Your task to perform on an android device: open app "TextNow: Call + Text Unlimited" (install if not already installed) and enter user name: "stoke@yahoo.com" and password: "prompted" Image 0: 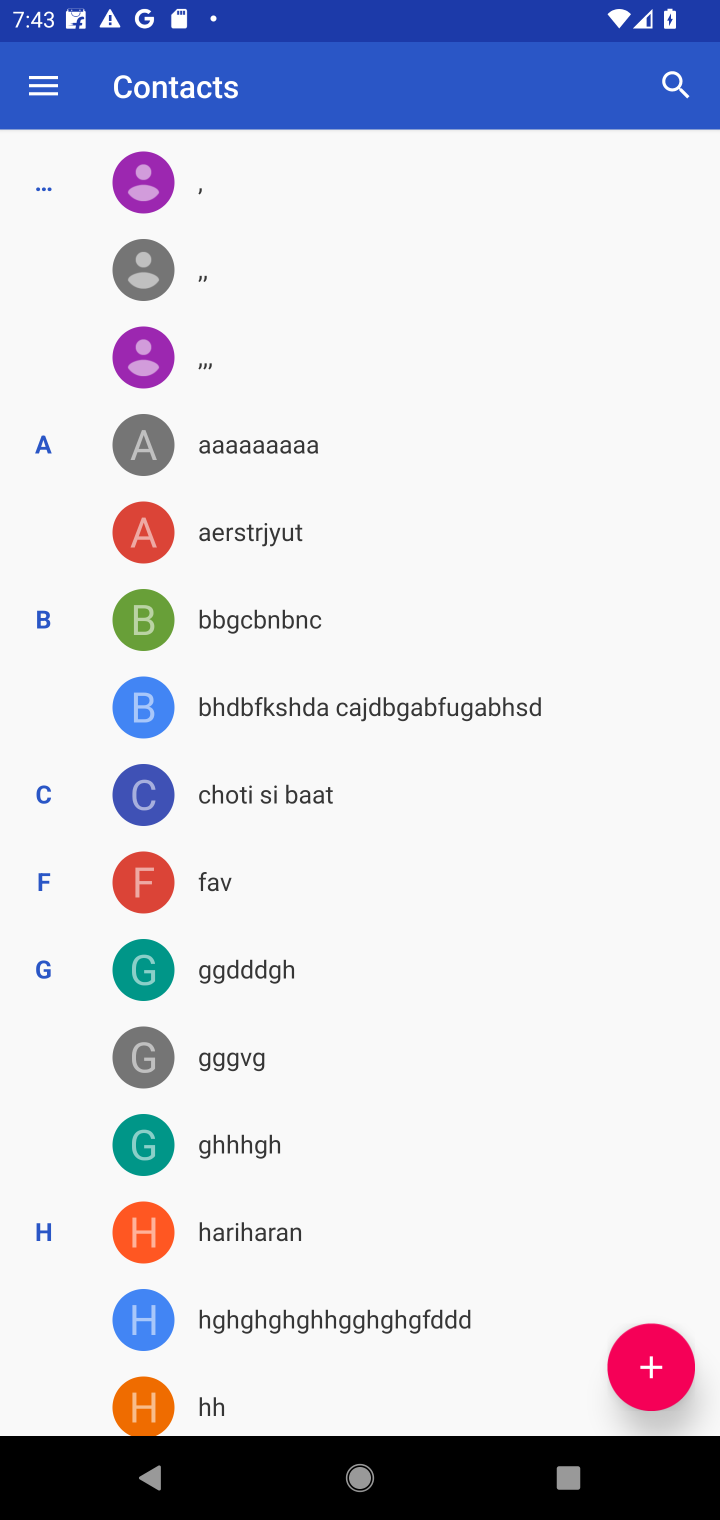
Step 0: click (671, 91)
Your task to perform on an android device: open app "TextNow: Call + Text Unlimited" (install if not already installed) and enter user name: "stoke@yahoo.com" and password: "prompted" Image 1: 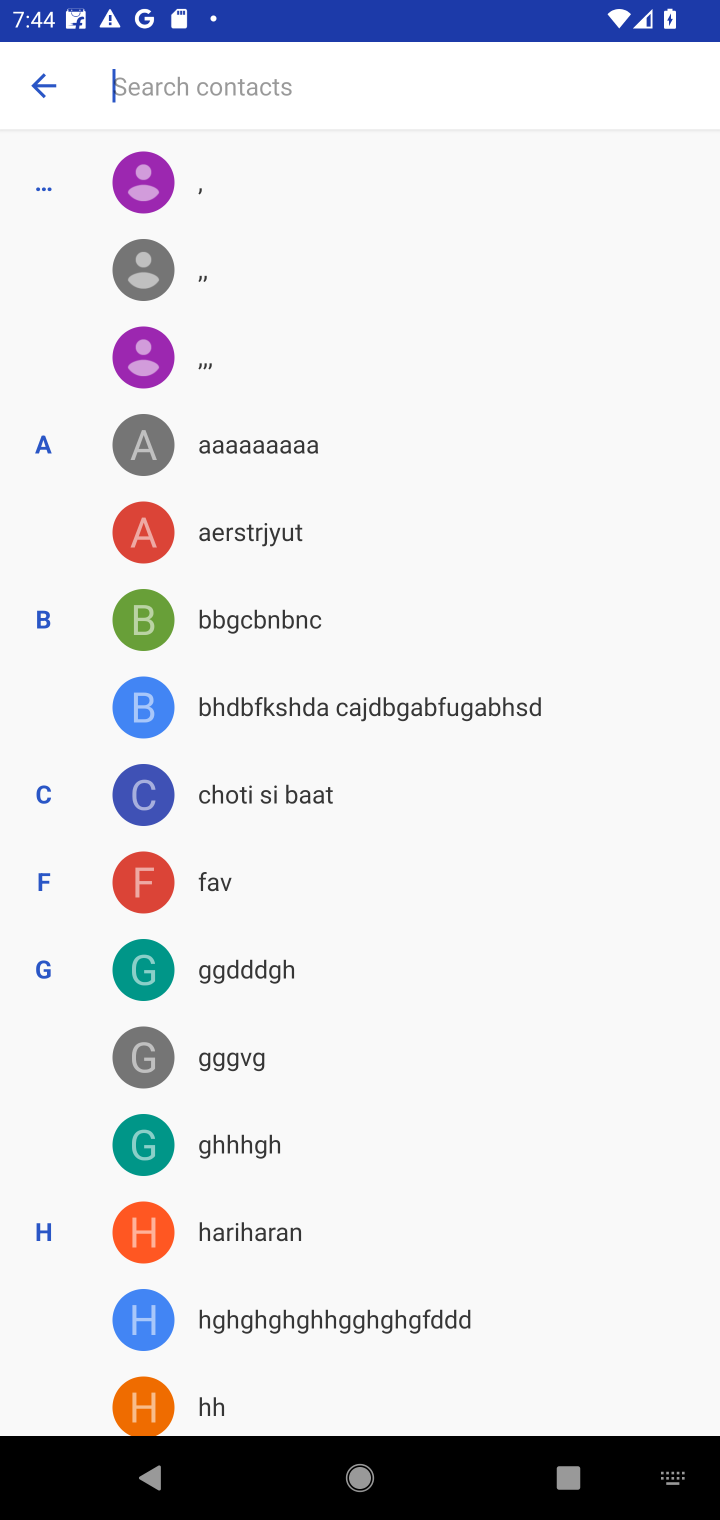
Step 1: press home button
Your task to perform on an android device: open app "TextNow: Call + Text Unlimited" (install if not already installed) and enter user name: "stoke@yahoo.com" and password: "prompted" Image 2: 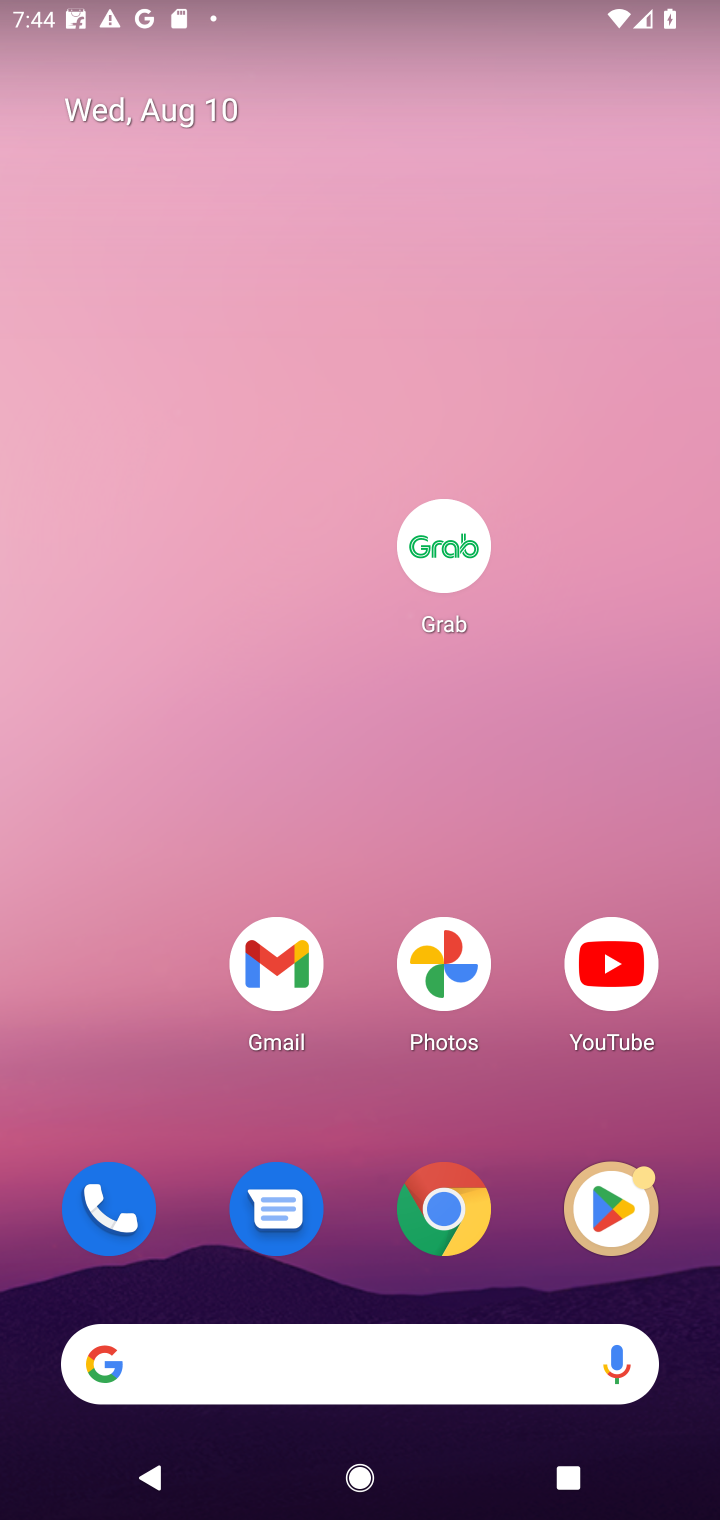
Step 2: click (591, 1240)
Your task to perform on an android device: open app "TextNow: Call + Text Unlimited" (install if not already installed) and enter user name: "stoke@yahoo.com" and password: "prompted" Image 3: 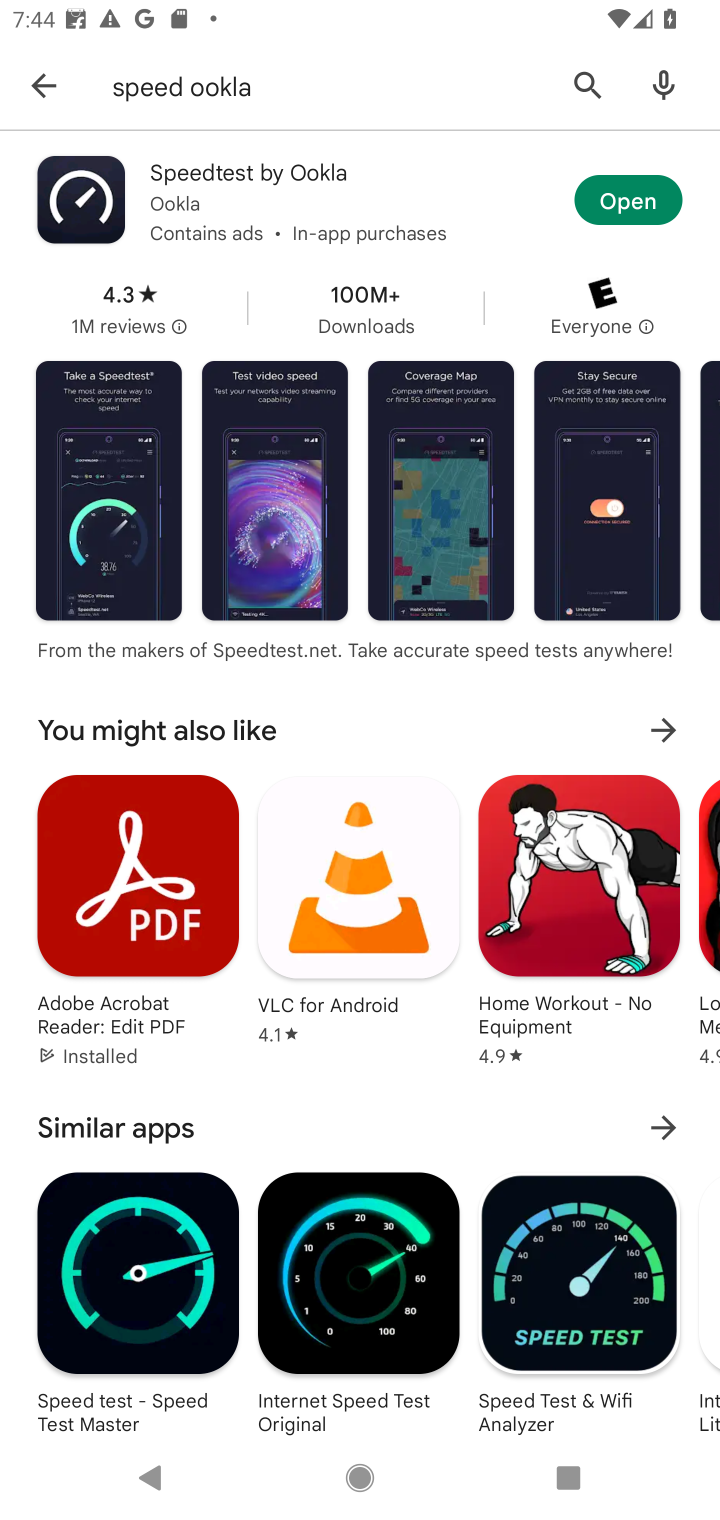
Step 3: click (590, 90)
Your task to perform on an android device: open app "TextNow: Call + Text Unlimited" (install if not already installed) and enter user name: "stoke@yahoo.com" and password: "prompted" Image 4: 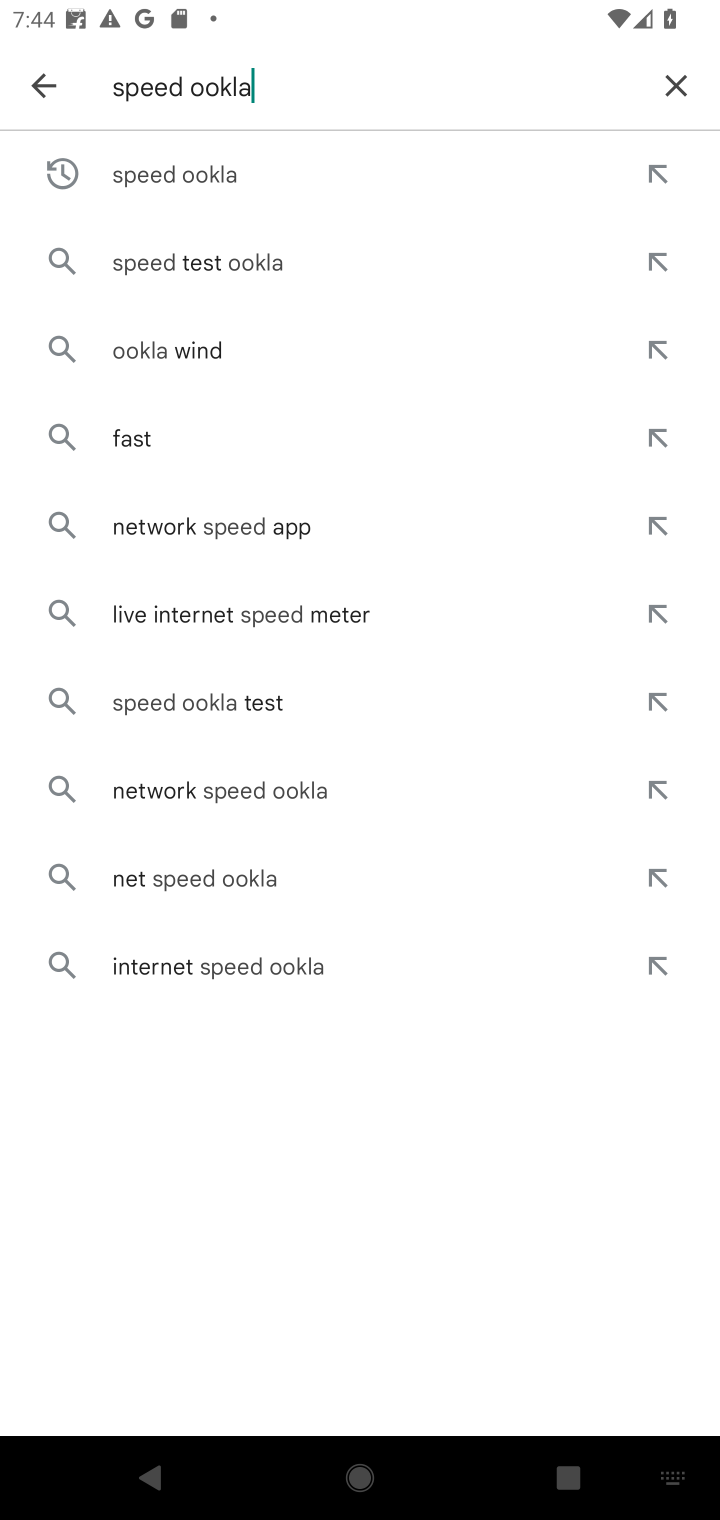
Step 4: click (679, 80)
Your task to perform on an android device: open app "TextNow: Call + Text Unlimited" (install if not already installed) and enter user name: "stoke@yahoo.com" and password: "prompted" Image 5: 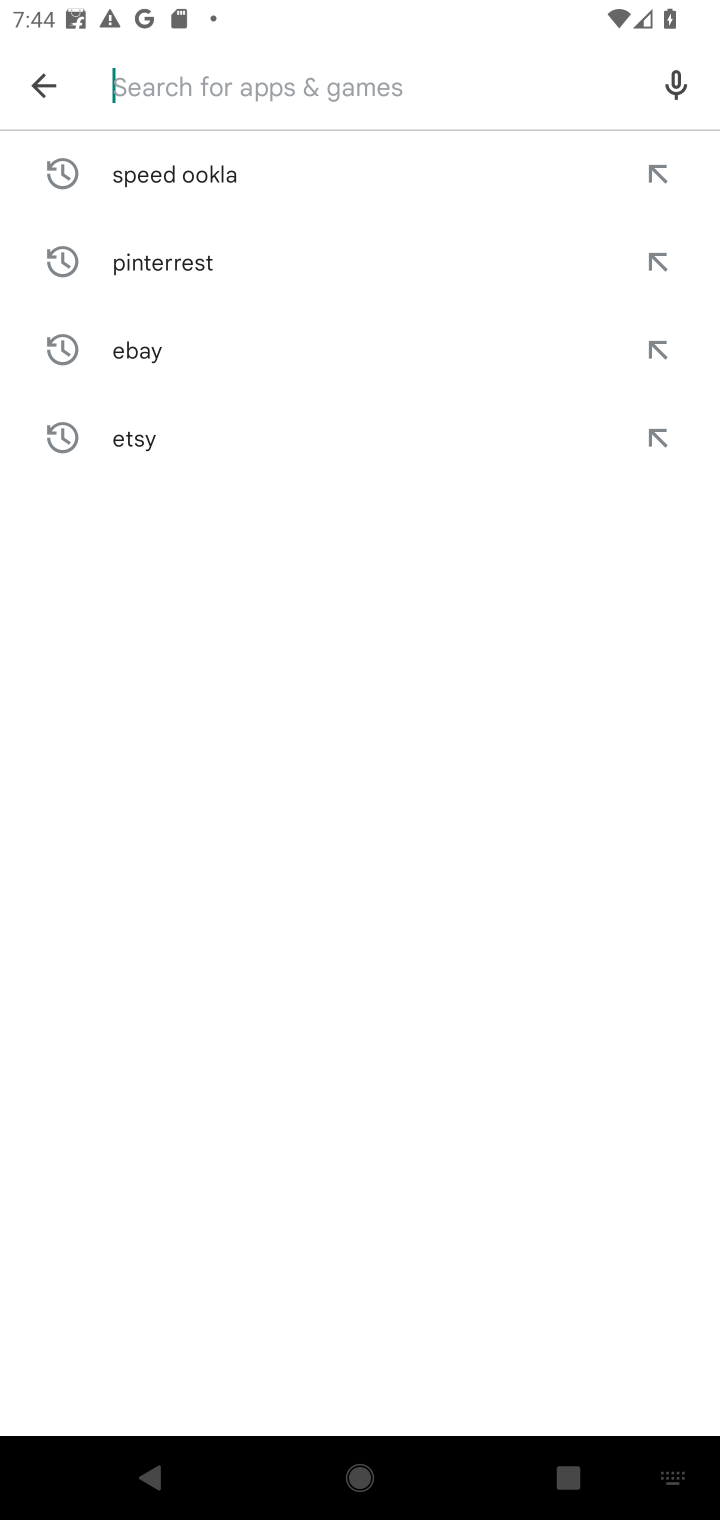
Step 5: type "textnow"
Your task to perform on an android device: open app "TextNow: Call + Text Unlimited" (install if not already installed) and enter user name: "stoke@yahoo.com" and password: "prompted" Image 6: 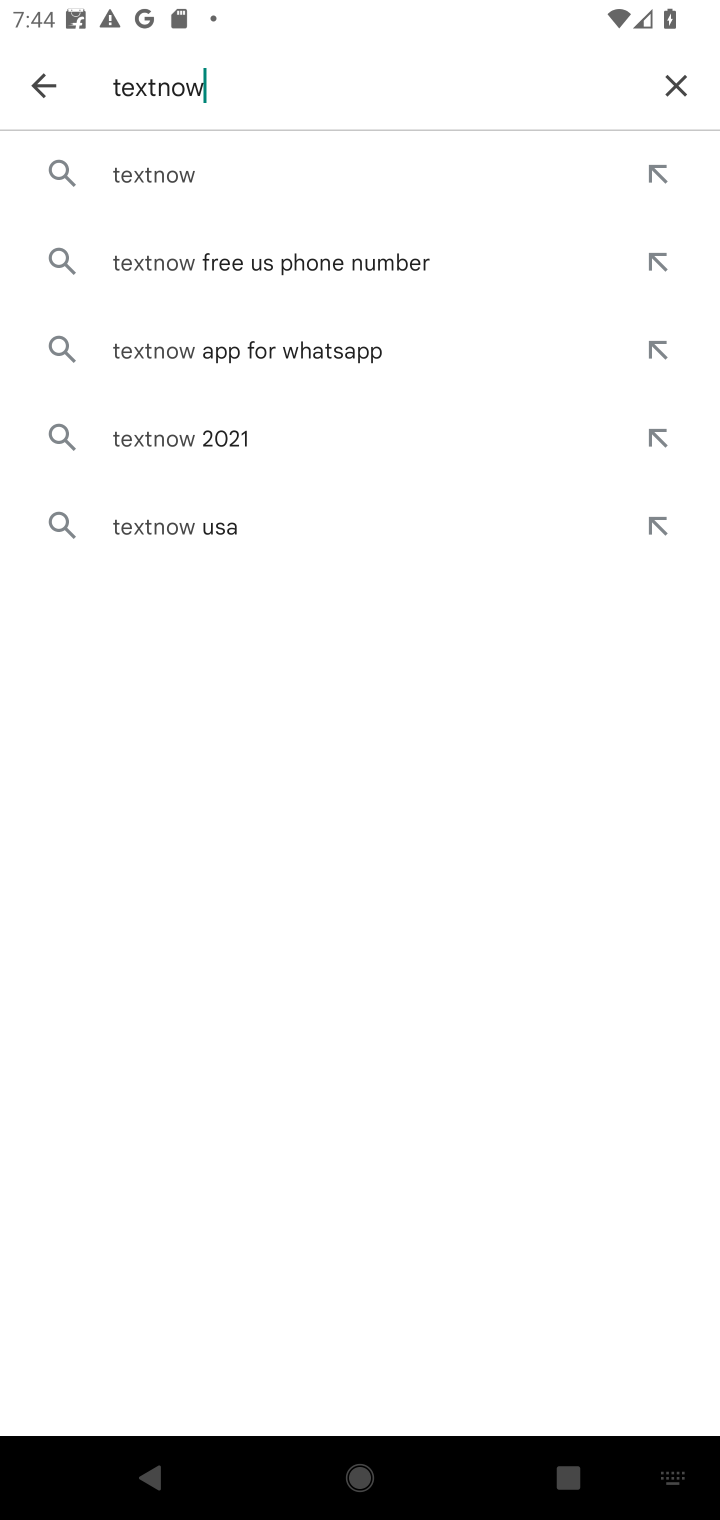
Step 6: click (193, 177)
Your task to perform on an android device: open app "TextNow: Call + Text Unlimited" (install if not already installed) and enter user name: "stoke@yahoo.com" and password: "prompted" Image 7: 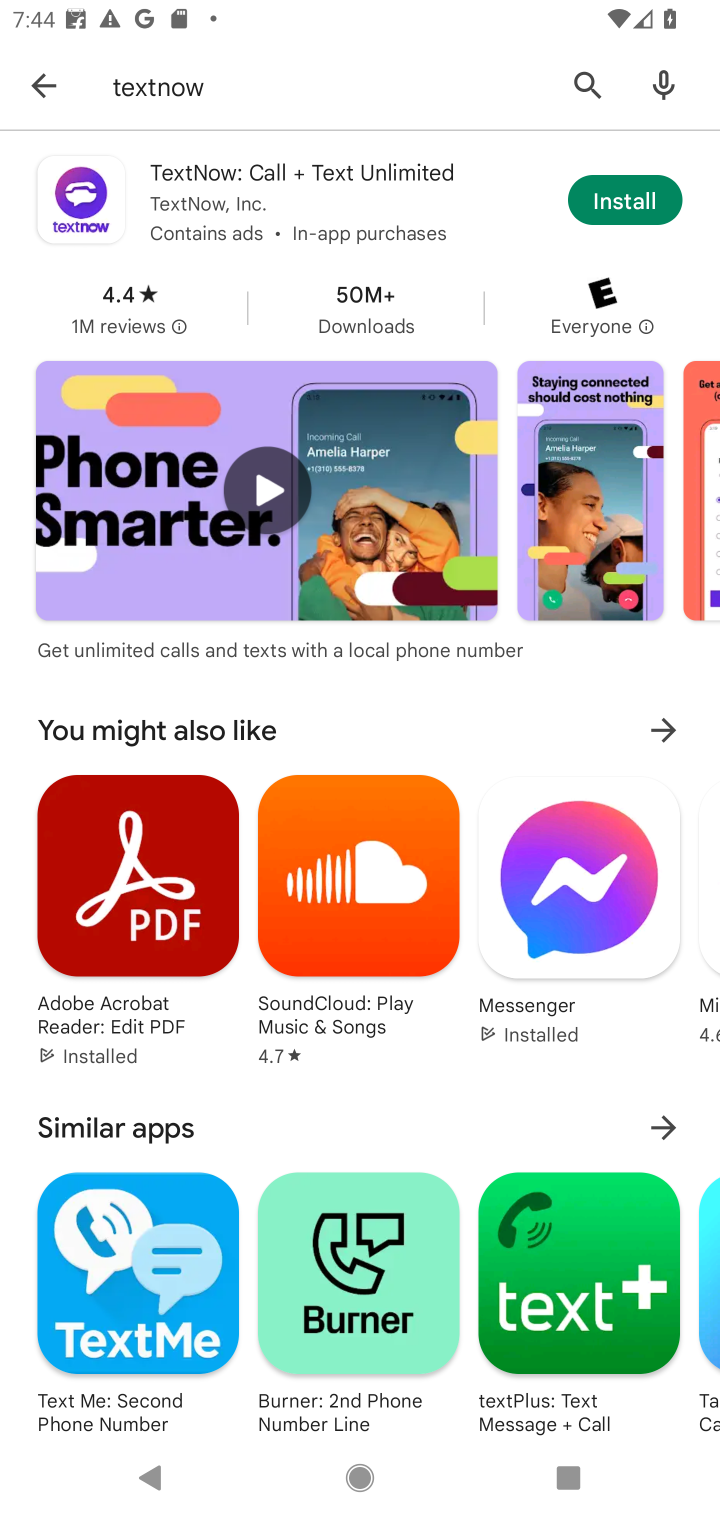
Step 7: click (660, 171)
Your task to perform on an android device: open app "TextNow: Call + Text Unlimited" (install if not already installed) and enter user name: "stoke@yahoo.com" and password: "prompted" Image 8: 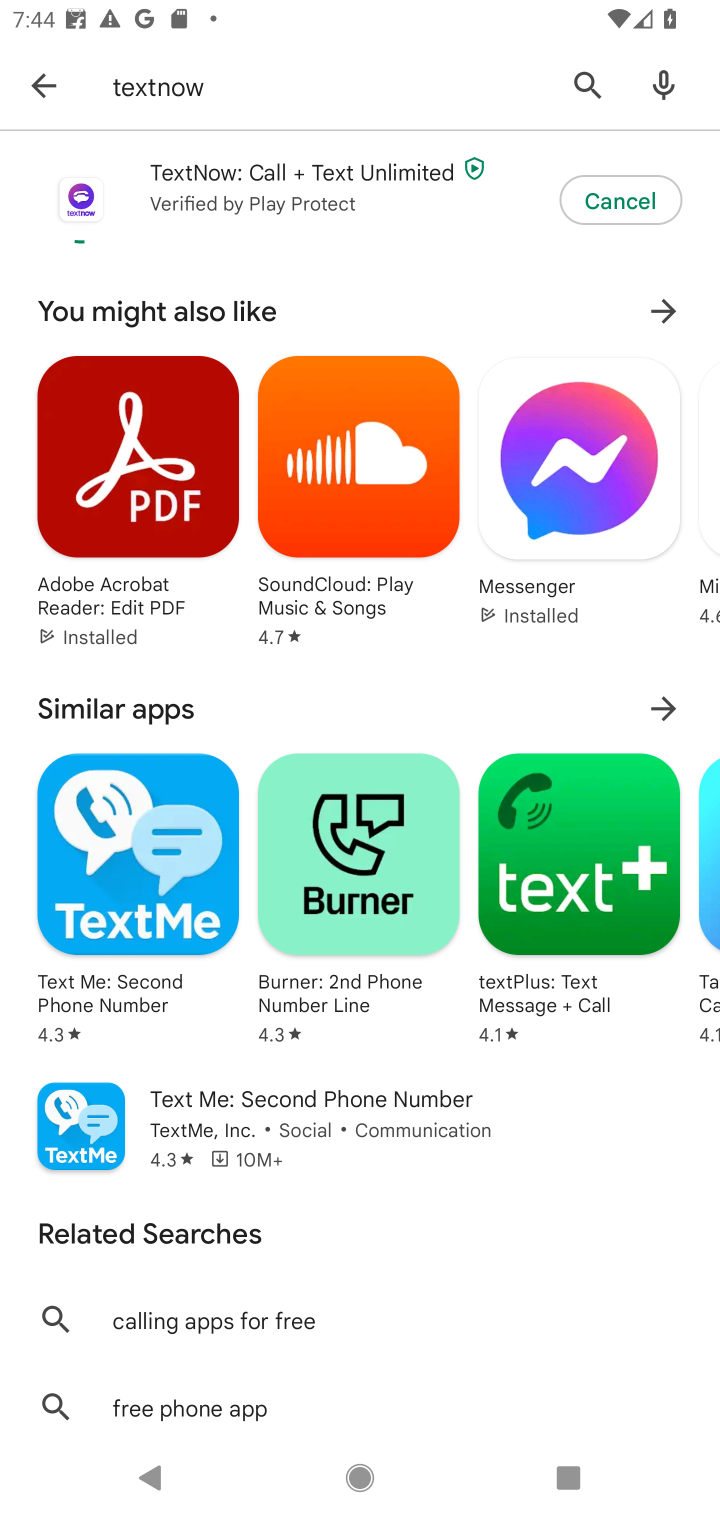
Step 8: task complete